Your task to perform on an android device: Clear the shopping cart on newegg.com. Add acer predator to the cart on newegg.com, then select checkout. Image 0: 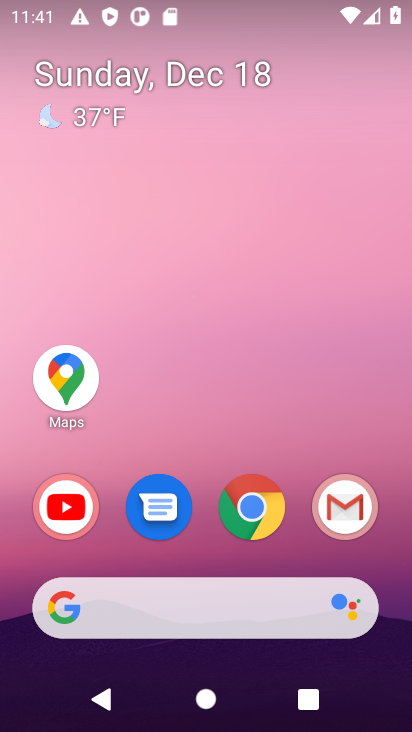
Step 0: click (257, 512)
Your task to perform on an android device: Clear the shopping cart on newegg.com. Add acer predator to the cart on newegg.com, then select checkout. Image 1: 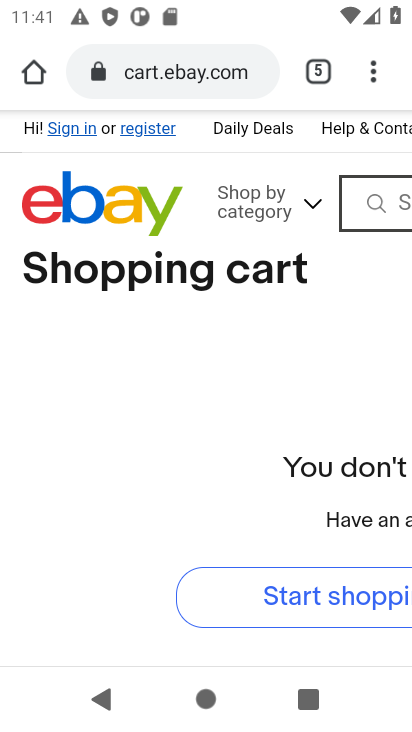
Step 1: click (176, 68)
Your task to perform on an android device: Clear the shopping cart on newegg.com. Add acer predator to the cart on newegg.com, then select checkout. Image 2: 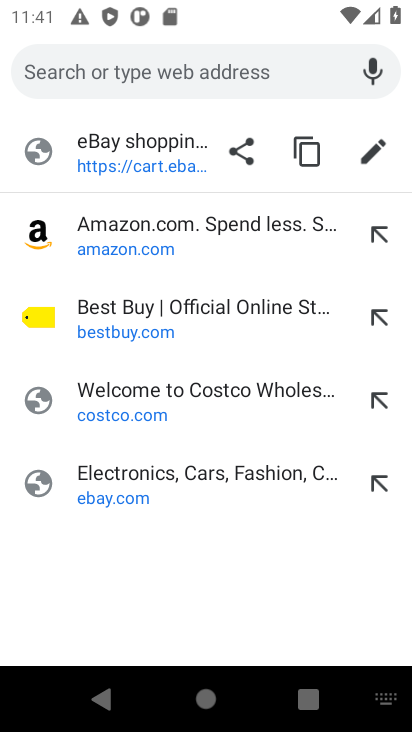
Step 2: type "newegg.com"
Your task to perform on an android device: Clear the shopping cart on newegg.com. Add acer predator to the cart on newegg.com, then select checkout. Image 3: 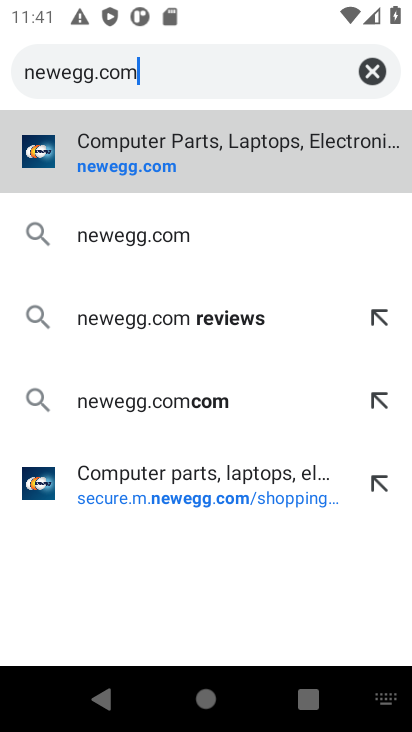
Step 3: click (111, 179)
Your task to perform on an android device: Clear the shopping cart on newegg.com. Add acer predator to the cart on newegg.com, then select checkout. Image 4: 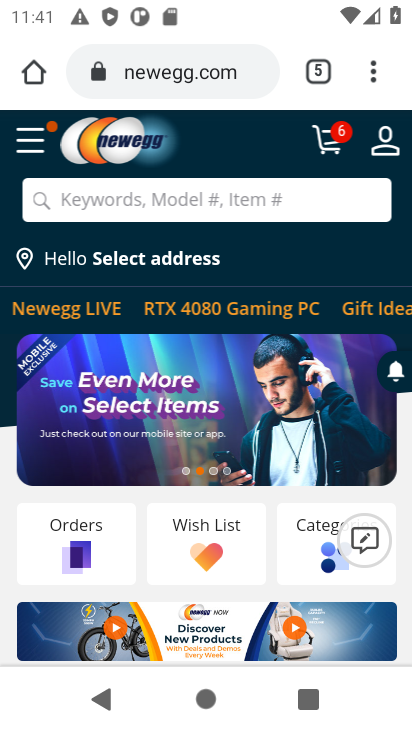
Step 4: click (333, 144)
Your task to perform on an android device: Clear the shopping cart on newegg.com. Add acer predator to the cart on newegg.com, then select checkout. Image 5: 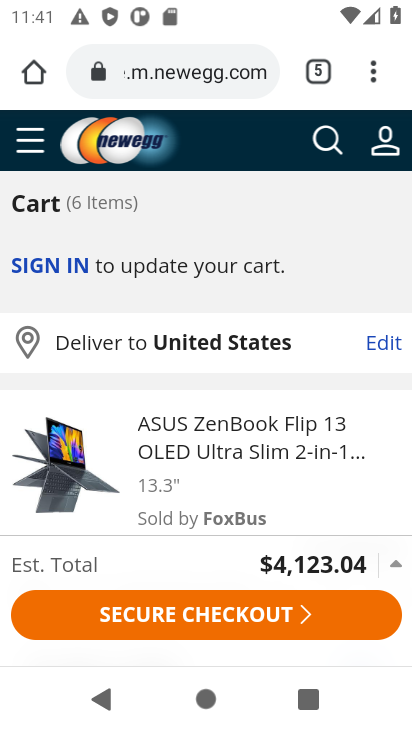
Step 5: drag from (212, 384) to (191, 178)
Your task to perform on an android device: Clear the shopping cart on newegg.com. Add acer predator to the cart on newegg.com, then select checkout. Image 6: 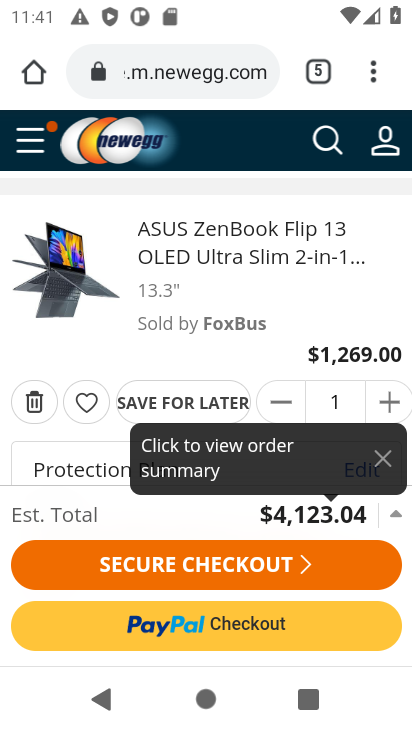
Step 6: click (30, 406)
Your task to perform on an android device: Clear the shopping cart on newegg.com. Add acer predator to the cart on newegg.com, then select checkout. Image 7: 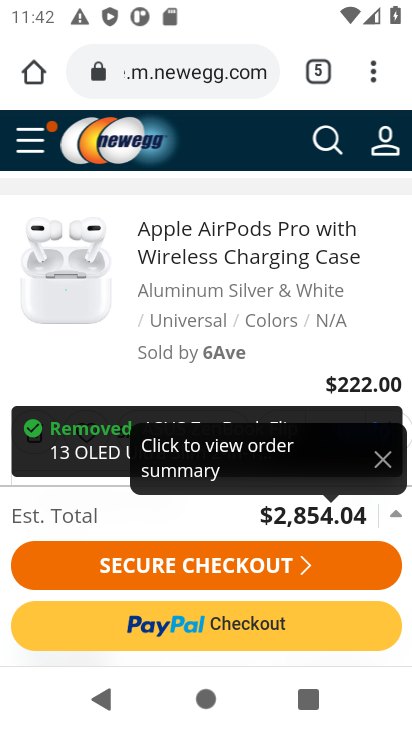
Step 7: drag from (96, 404) to (60, 236)
Your task to perform on an android device: Clear the shopping cart on newegg.com. Add acer predator to the cart on newegg.com, then select checkout. Image 8: 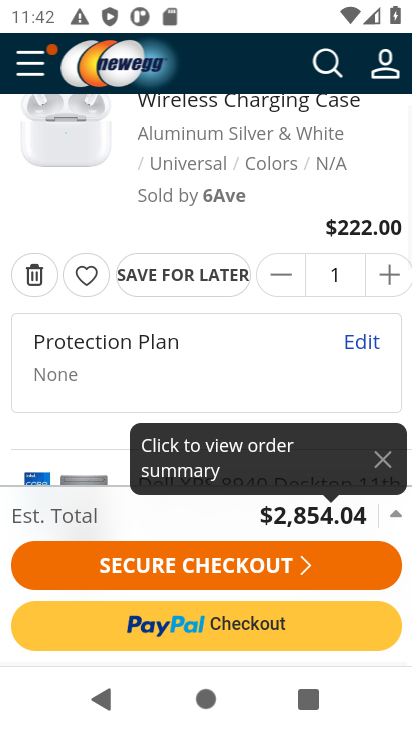
Step 8: click (28, 287)
Your task to perform on an android device: Clear the shopping cart on newegg.com. Add acer predator to the cart on newegg.com, then select checkout. Image 9: 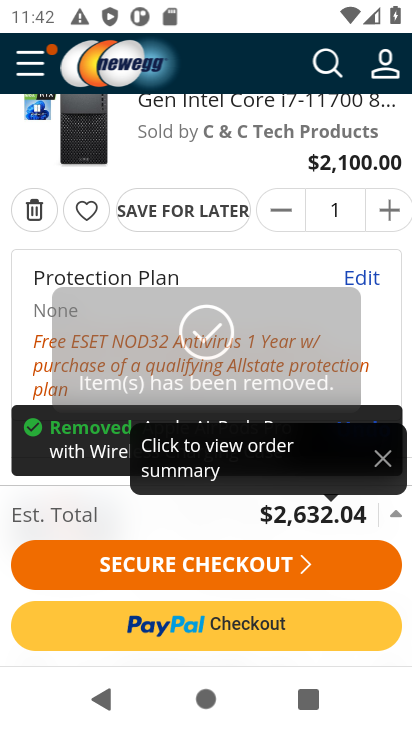
Step 9: click (27, 211)
Your task to perform on an android device: Clear the shopping cart on newegg.com. Add acer predator to the cart on newegg.com, then select checkout. Image 10: 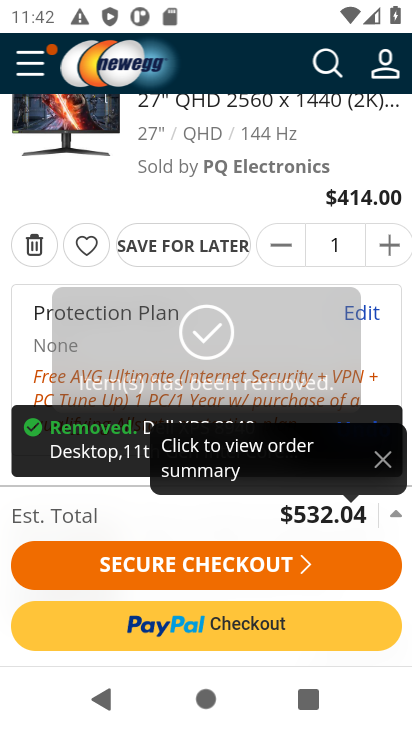
Step 10: click (33, 245)
Your task to perform on an android device: Clear the shopping cart on newegg.com. Add acer predator to the cart on newegg.com, then select checkout. Image 11: 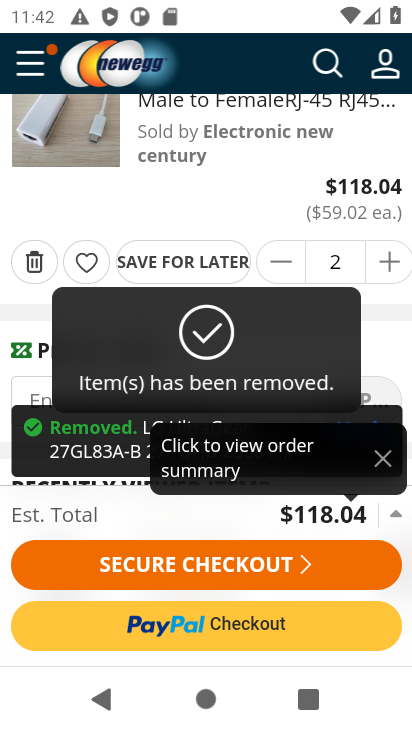
Step 11: click (27, 263)
Your task to perform on an android device: Clear the shopping cart on newegg.com. Add acer predator to the cart on newegg.com, then select checkout. Image 12: 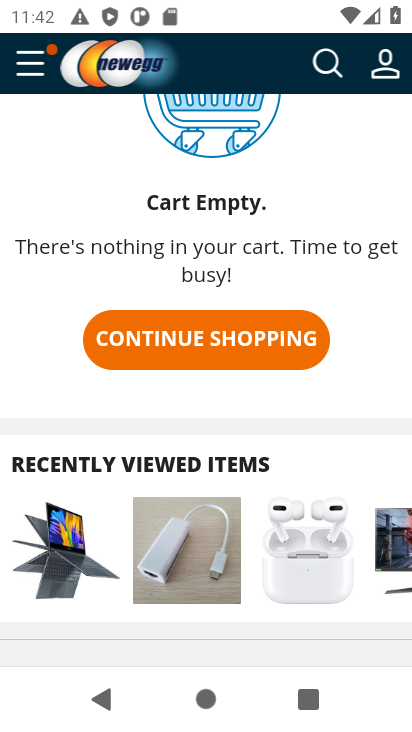
Step 12: drag from (196, 281) to (221, 538)
Your task to perform on an android device: Clear the shopping cart on newegg.com. Add acer predator to the cart on newegg.com, then select checkout. Image 13: 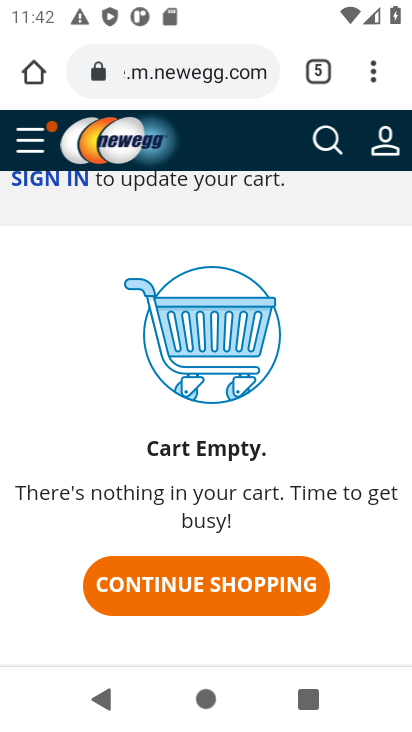
Step 13: click (317, 142)
Your task to perform on an android device: Clear the shopping cart on newegg.com. Add acer predator to the cart on newegg.com, then select checkout. Image 14: 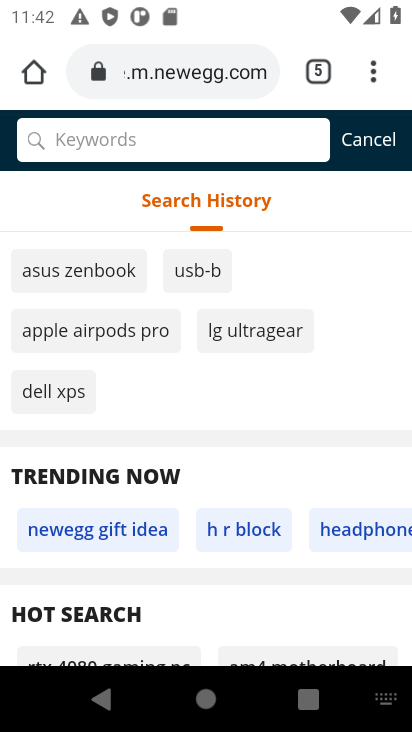
Step 14: type "acer predator"
Your task to perform on an android device: Clear the shopping cart on newegg.com. Add acer predator to the cart on newegg.com, then select checkout. Image 15: 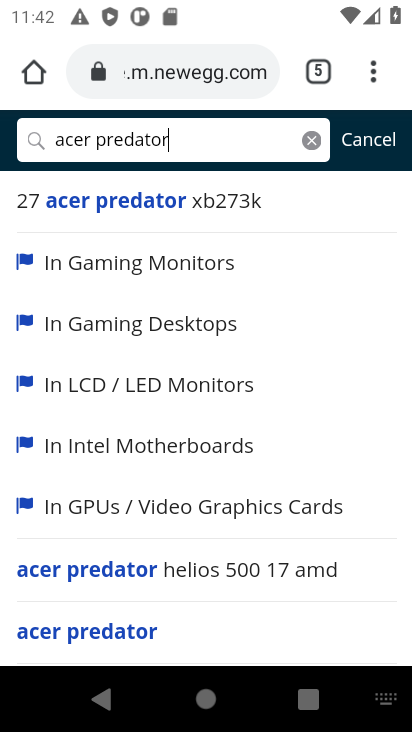
Step 15: click (126, 628)
Your task to perform on an android device: Clear the shopping cart on newegg.com. Add acer predator to the cart on newegg.com, then select checkout. Image 16: 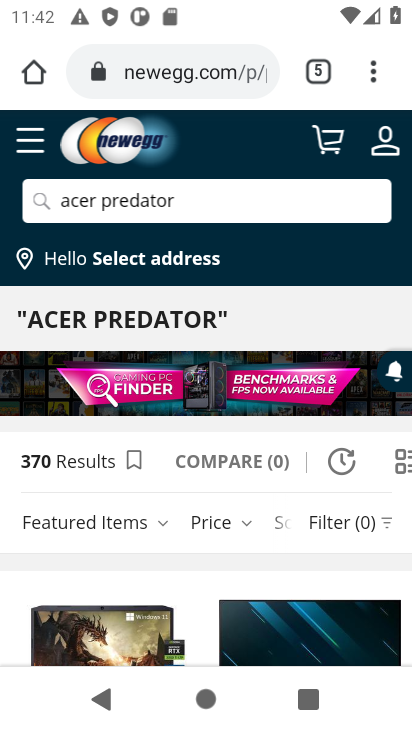
Step 16: drag from (123, 605) to (102, 259)
Your task to perform on an android device: Clear the shopping cart on newegg.com. Add acer predator to the cart on newegg.com, then select checkout. Image 17: 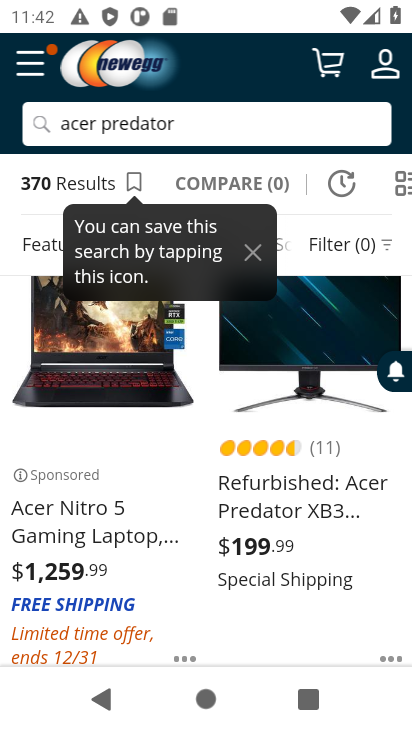
Step 17: drag from (110, 448) to (113, 303)
Your task to perform on an android device: Clear the shopping cart on newegg.com. Add acer predator to the cart on newegg.com, then select checkout. Image 18: 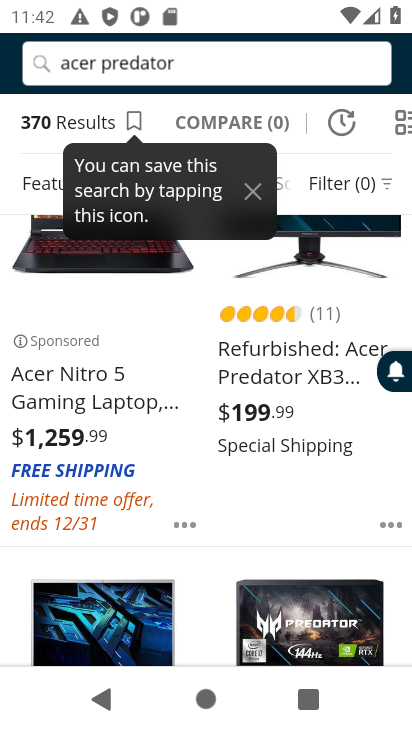
Step 18: drag from (114, 535) to (94, 310)
Your task to perform on an android device: Clear the shopping cart on newegg.com. Add acer predator to the cart on newegg.com, then select checkout. Image 19: 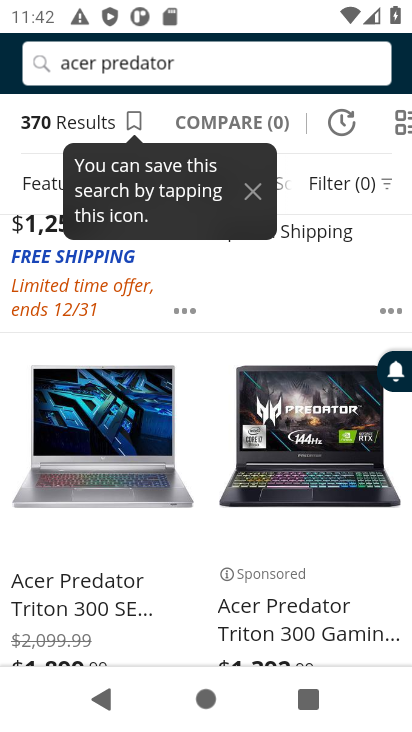
Step 19: click (90, 598)
Your task to perform on an android device: Clear the shopping cart on newegg.com. Add acer predator to the cart on newegg.com, then select checkout. Image 20: 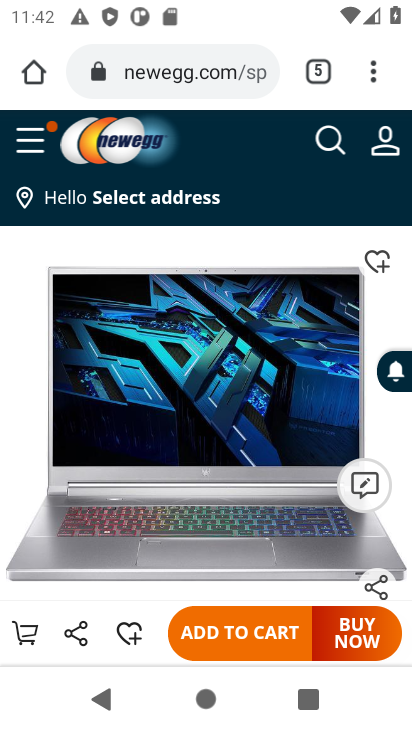
Step 20: click (237, 642)
Your task to perform on an android device: Clear the shopping cart on newegg.com. Add acer predator to the cart on newegg.com, then select checkout. Image 21: 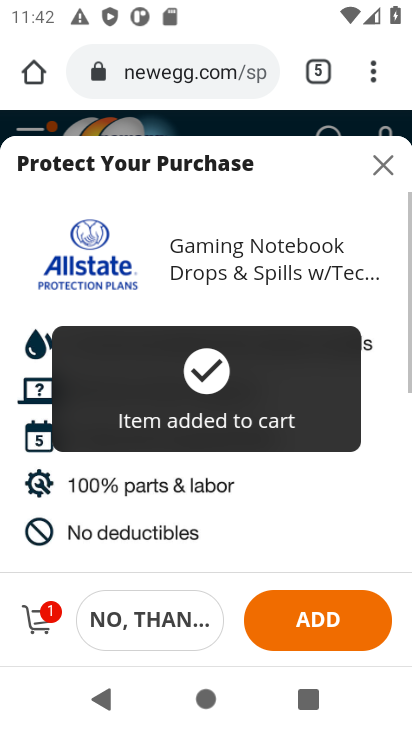
Step 21: click (41, 622)
Your task to perform on an android device: Clear the shopping cart on newegg.com. Add acer predator to the cart on newegg.com, then select checkout. Image 22: 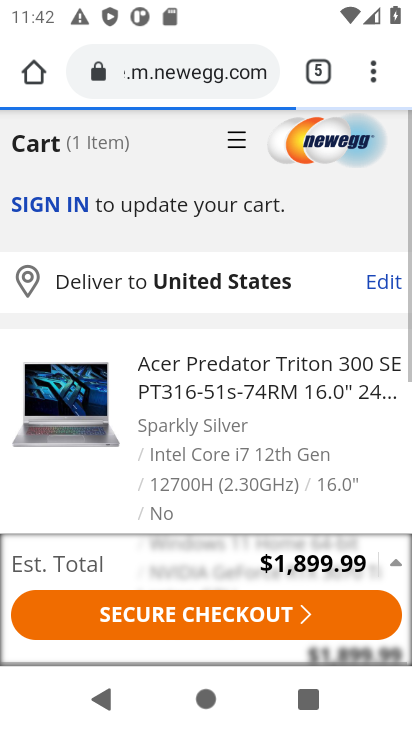
Step 22: click (109, 615)
Your task to perform on an android device: Clear the shopping cart on newegg.com. Add acer predator to the cart on newegg.com, then select checkout. Image 23: 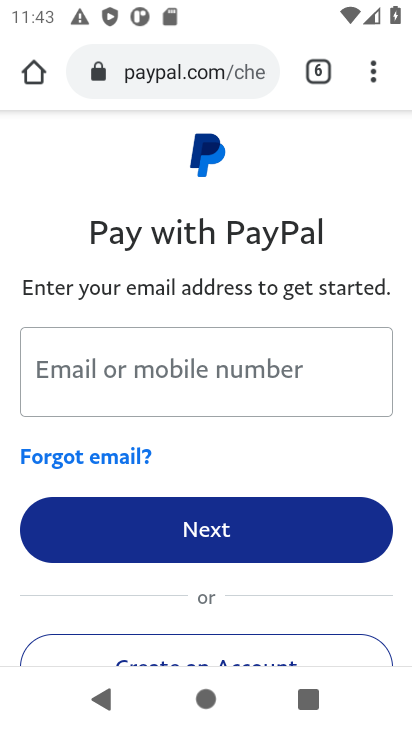
Step 23: task complete